Your task to perform on an android device: turn off airplane mode Image 0: 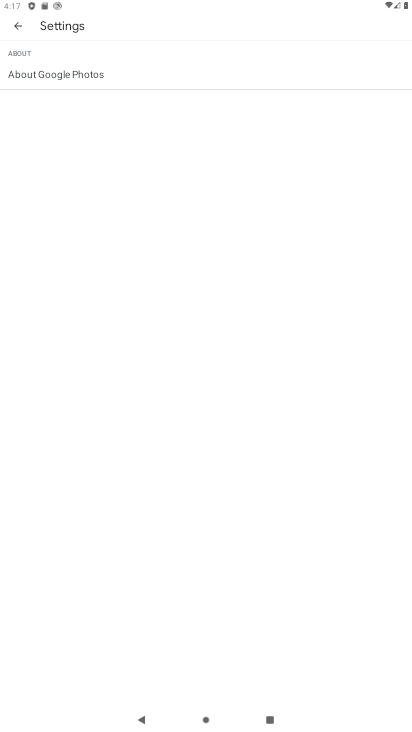
Step 0: drag from (360, 5) to (219, 547)
Your task to perform on an android device: turn off airplane mode Image 1: 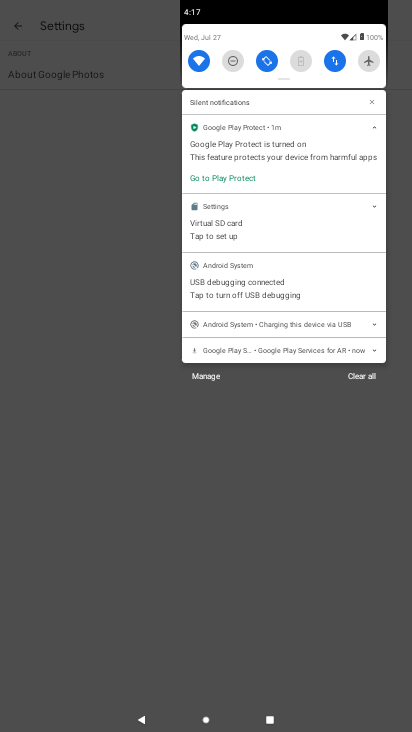
Step 1: task complete